Your task to perform on an android device: Show me popular games on the Play Store Image 0: 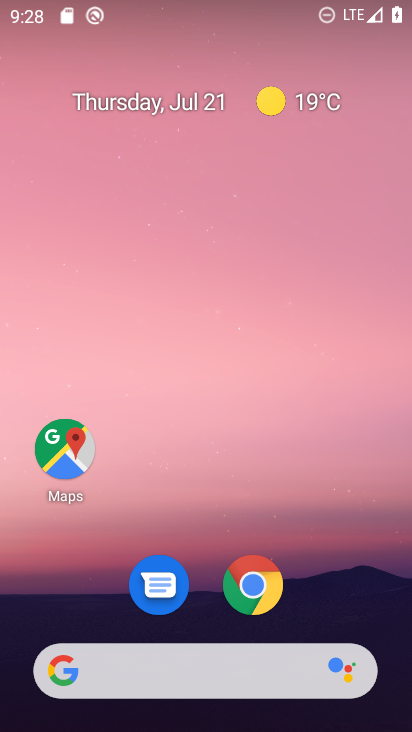
Step 0: drag from (323, 555) to (324, 67)
Your task to perform on an android device: Show me popular games on the Play Store Image 1: 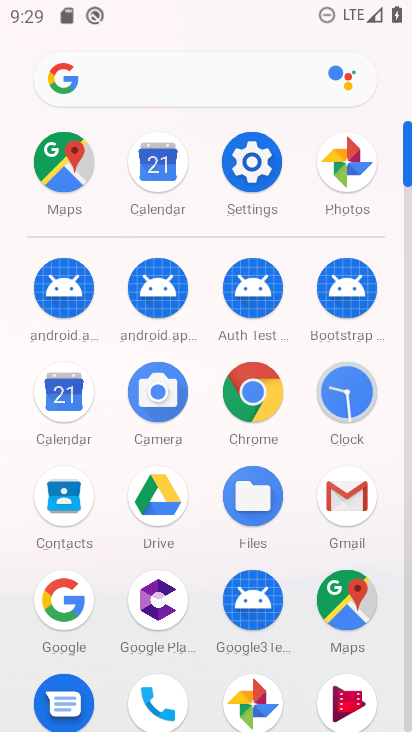
Step 1: drag from (304, 504) to (304, 271)
Your task to perform on an android device: Show me popular games on the Play Store Image 2: 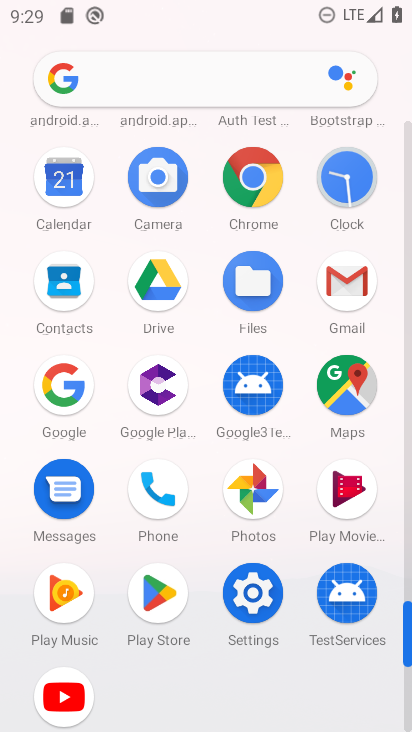
Step 2: click (155, 587)
Your task to perform on an android device: Show me popular games on the Play Store Image 3: 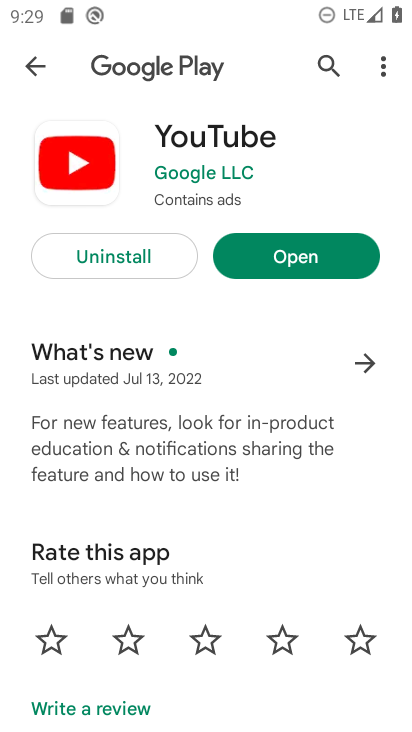
Step 3: click (40, 68)
Your task to perform on an android device: Show me popular games on the Play Store Image 4: 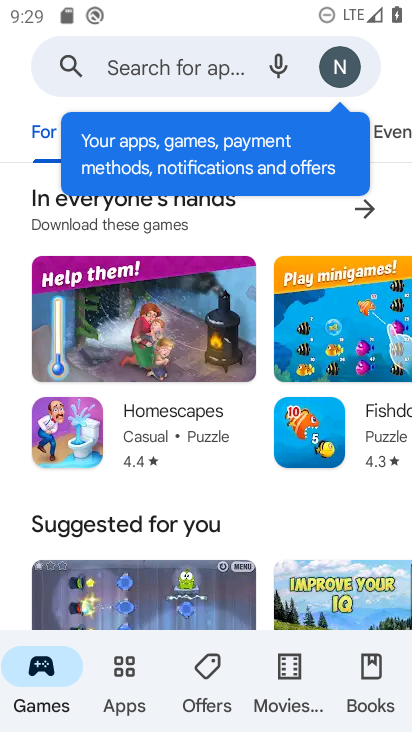
Step 4: drag from (272, 509) to (315, 72)
Your task to perform on an android device: Show me popular games on the Play Store Image 5: 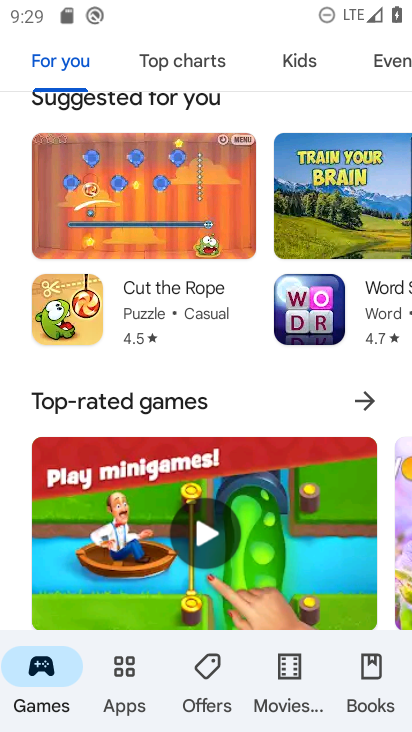
Step 5: drag from (230, 501) to (265, 160)
Your task to perform on an android device: Show me popular games on the Play Store Image 6: 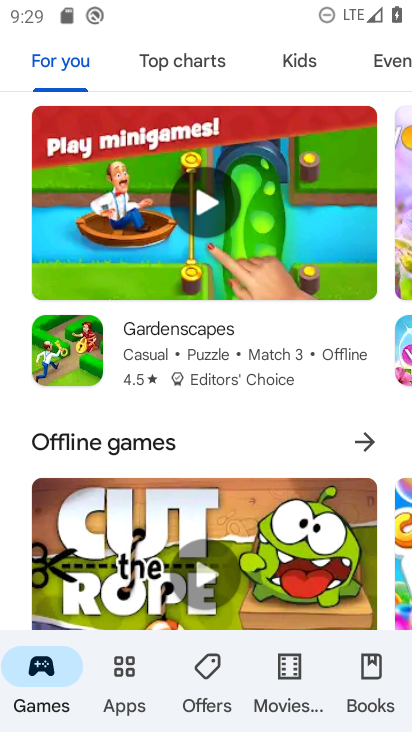
Step 6: drag from (306, 227) to (314, 476)
Your task to perform on an android device: Show me popular games on the Play Store Image 7: 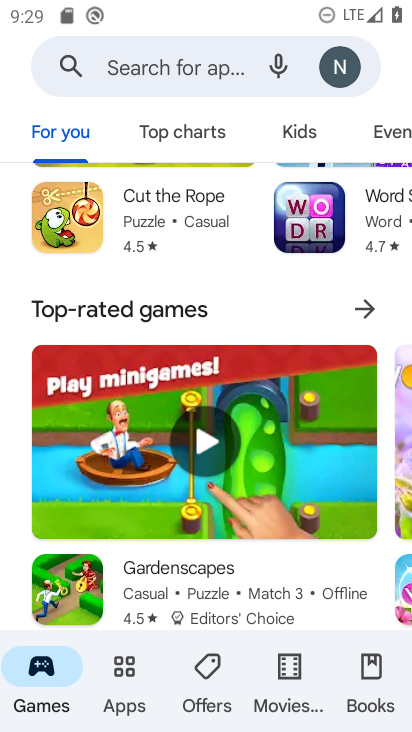
Step 7: click (370, 307)
Your task to perform on an android device: Show me popular games on the Play Store Image 8: 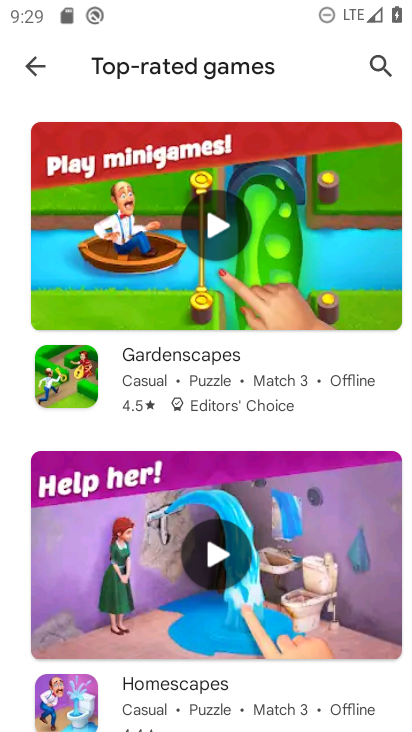
Step 8: task complete